Your task to perform on an android device: clear history in the chrome app Image 0: 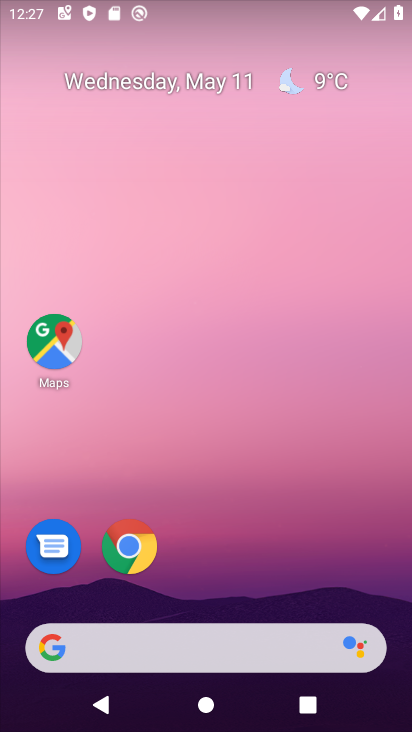
Step 0: drag from (308, 628) to (293, 36)
Your task to perform on an android device: clear history in the chrome app Image 1: 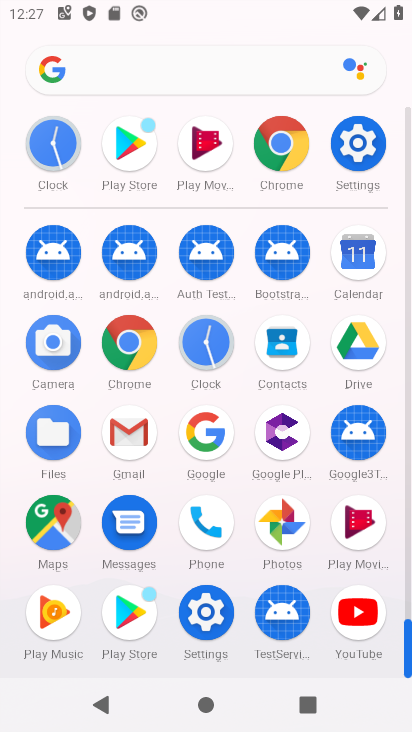
Step 1: click (145, 334)
Your task to perform on an android device: clear history in the chrome app Image 2: 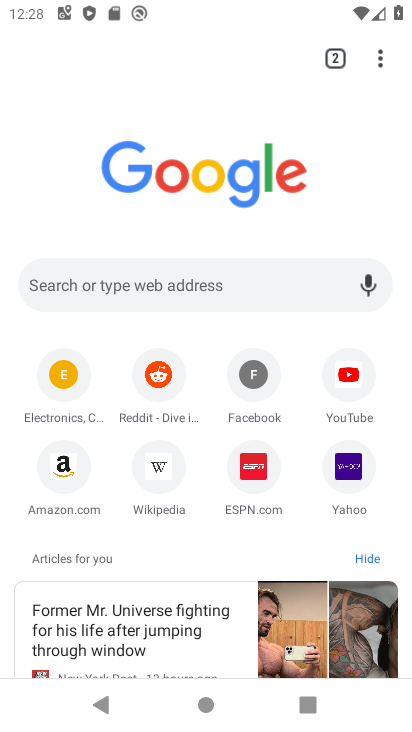
Step 2: drag from (386, 61) to (269, 361)
Your task to perform on an android device: clear history in the chrome app Image 3: 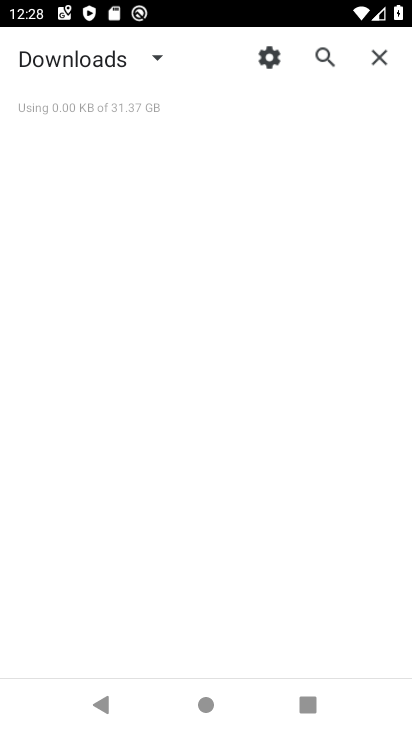
Step 3: press back button
Your task to perform on an android device: clear history in the chrome app Image 4: 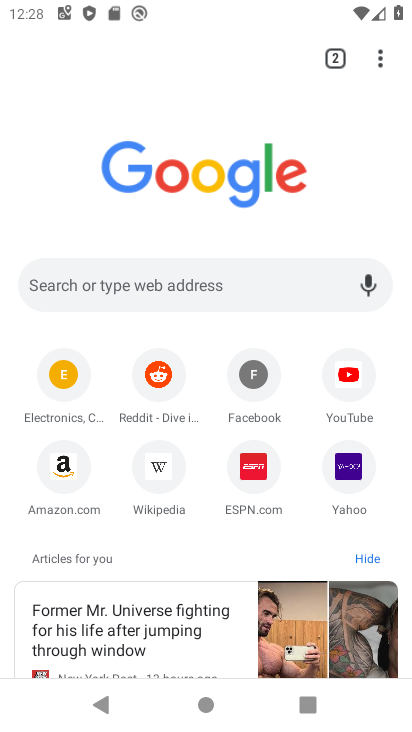
Step 4: drag from (382, 55) to (223, 320)
Your task to perform on an android device: clear history in the chrome app Image 5: 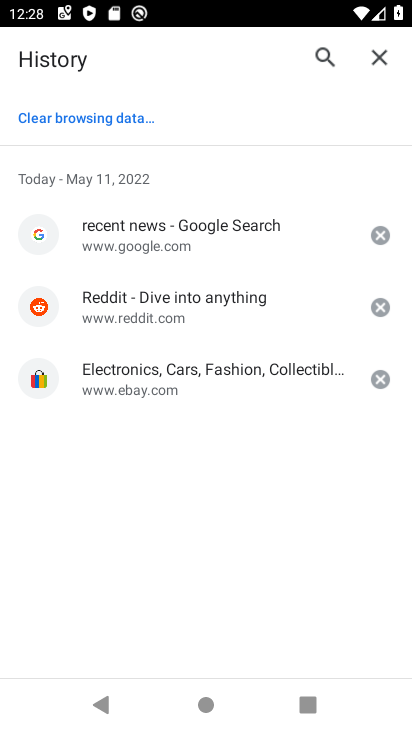
Step 5: click (145, 118)
Your task to perform on an android device: clear history in the chrome app Image 6: 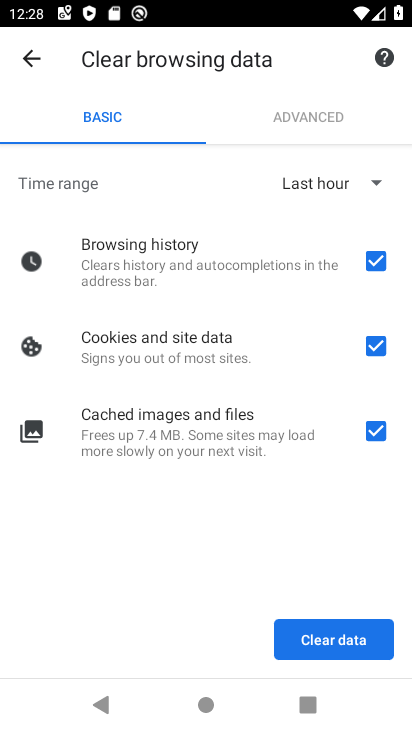
Step 6: click (358, 628)
Your task to perform on an android device: clear history in the chrome app Image 7: 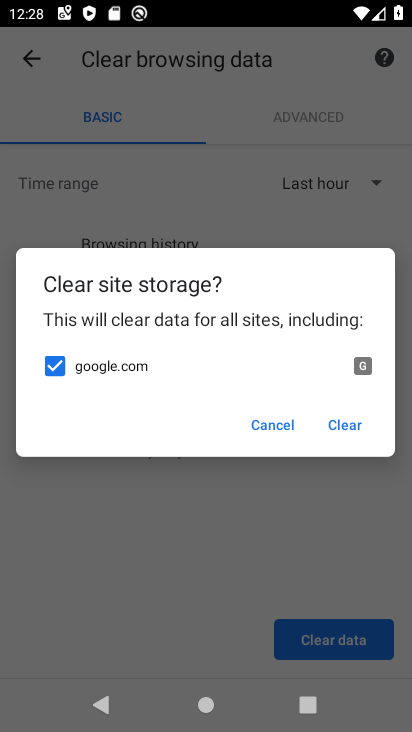
Step 7: click (343, 420)
Your task to perform on an android device: clear history in the chrome app Image 8: 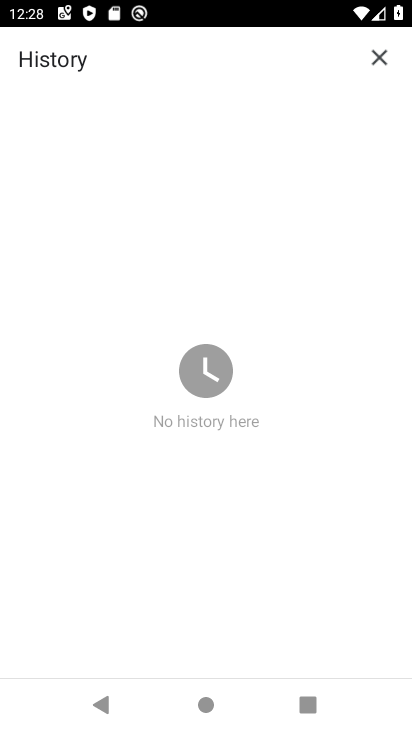
Step 8: task complete